Your task to perform on an android device: manage bookmarks in the chrome app Image 0: 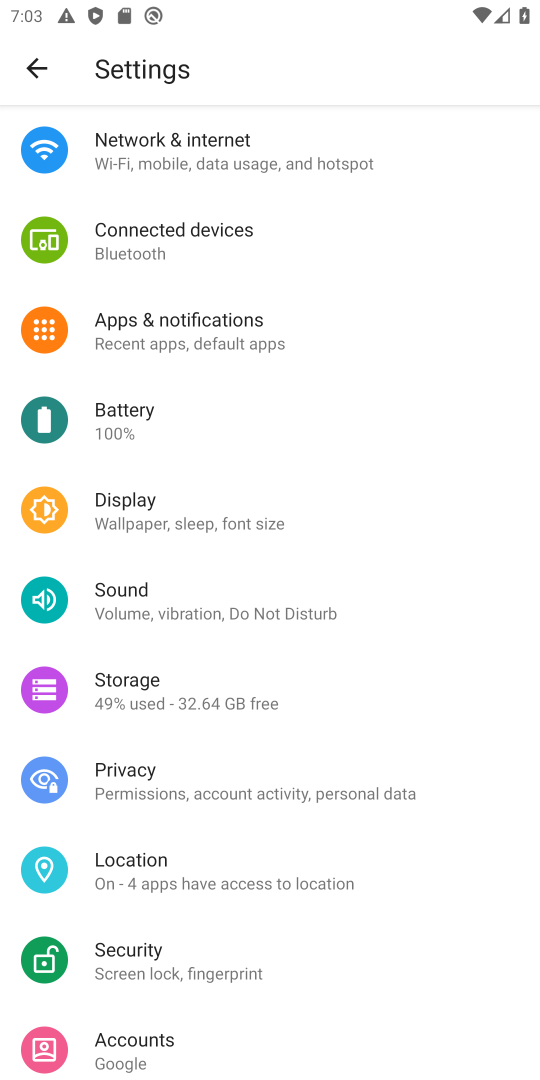
Step 0: press home button
Your task to perform on an android device: manage bookmarks in the chrome app Image 1: 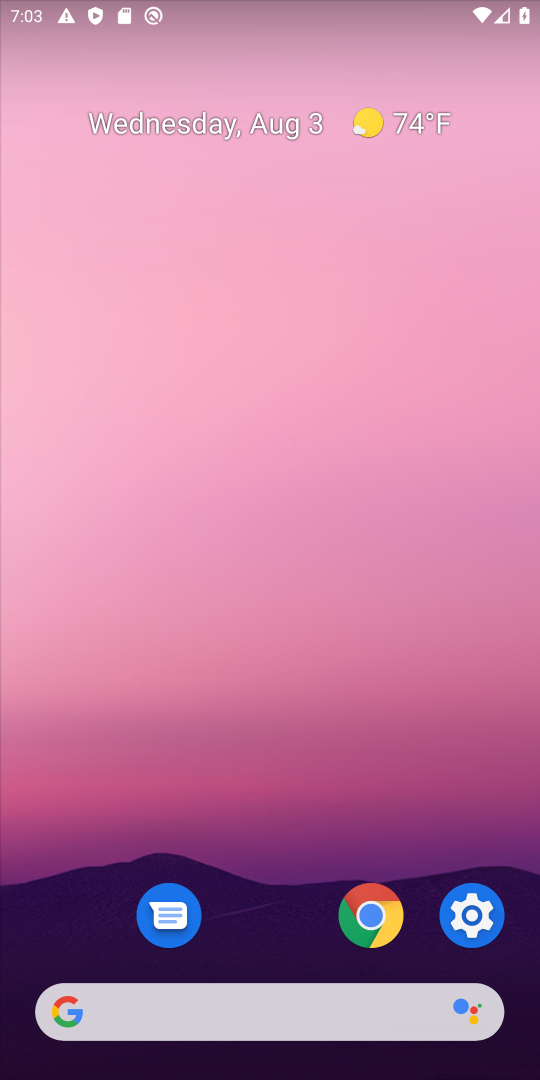
Step 1: drag from (338, 1054) to (201, 349)
Your task to perform on an android device: manage bookmarks in the chrome app Image 2: 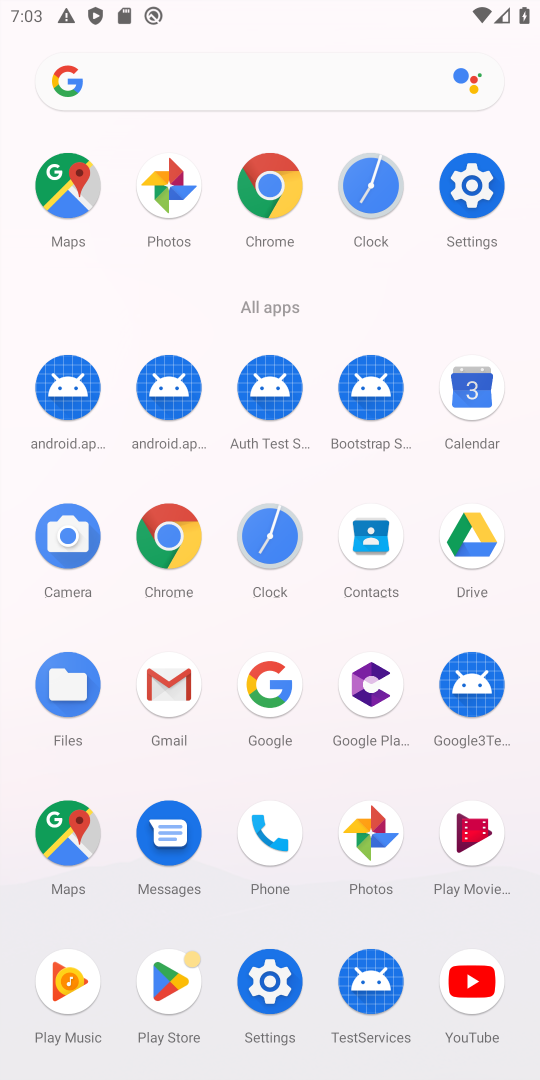
Step 2: click (252, 186)
Your task to perform on an android device: manage bookmarks in the chrome app Image 3: 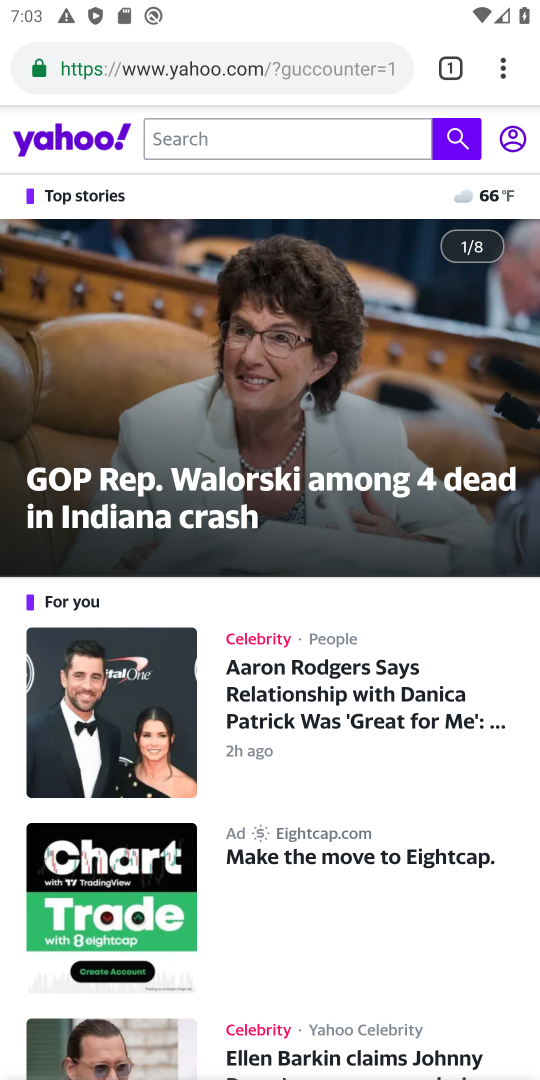
Step 3: click (510, 81)
Your task to perform on an android device: manage bookmarks in the chrome app Image 4: 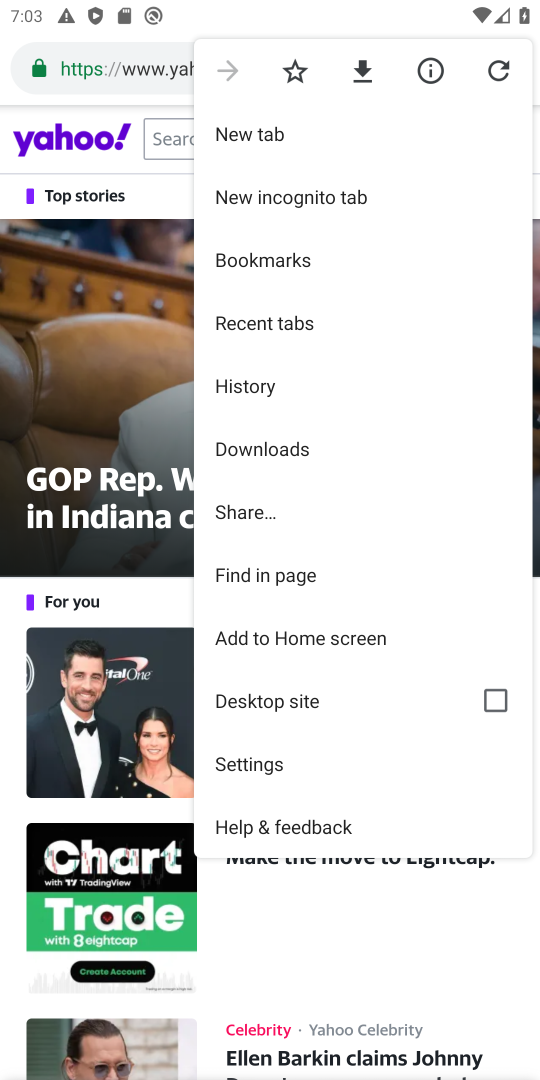
Step 4: click (269, 271)
Your task to perform on an android device: manage bookmarks in the chrome app Image 5: 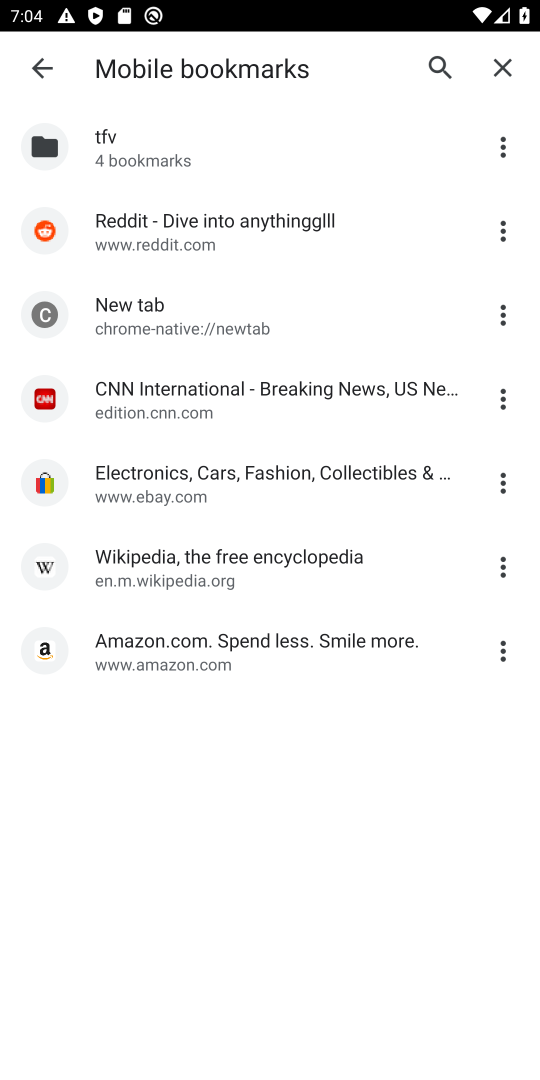
Step 5: task complete